Your task to perform on an android device: Search for flights from Buenos aires to Helsinki Image 0: 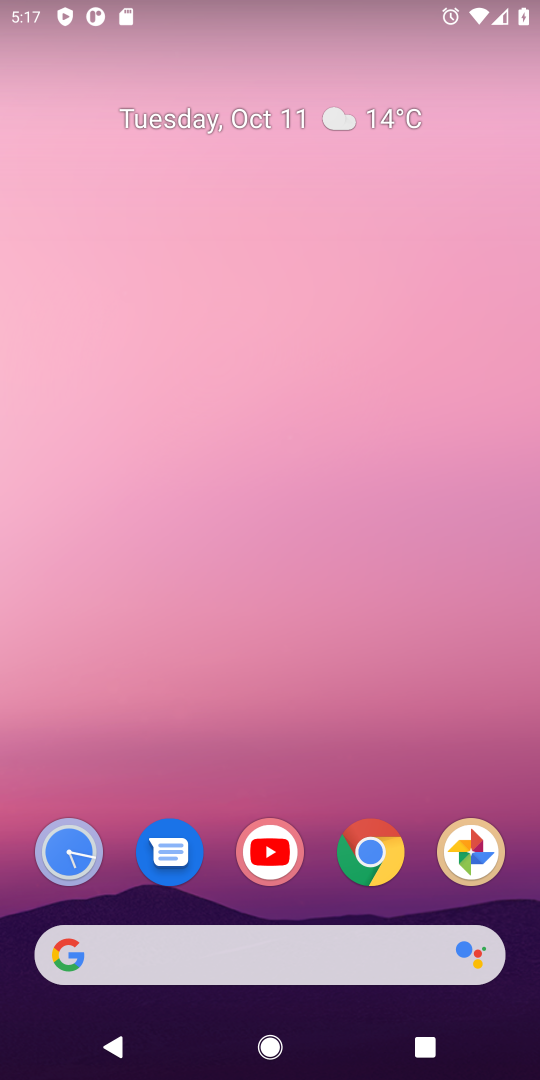
Step 0: click (377, 842)
Your task to perform on an android device: Search for flights from Buenos aires to Helsinki Image 1: 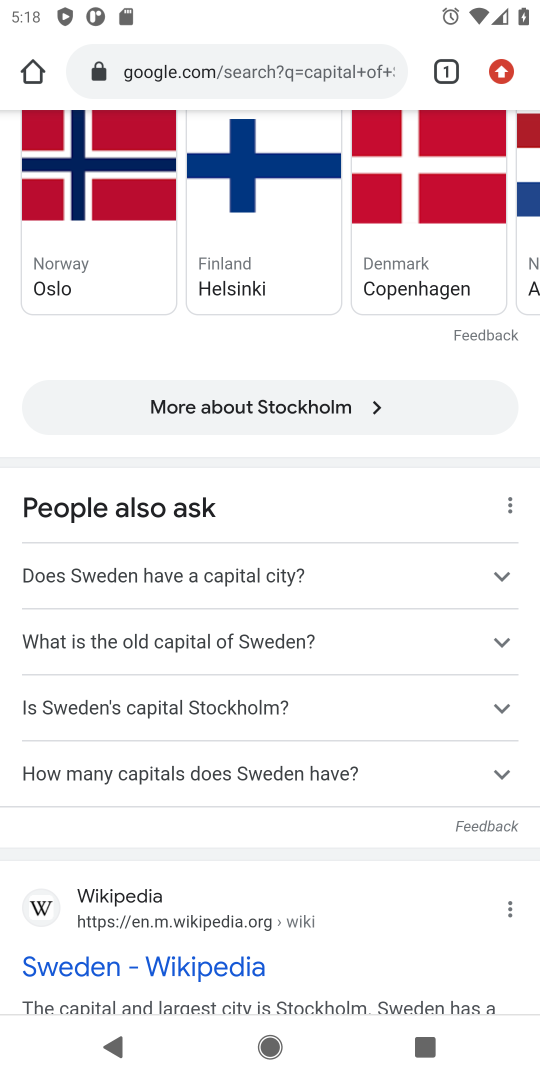
Step 1: click (369, 81)
Your task to perform on an android device: Search for flights from Buenos aires to Helsinki Image 2: 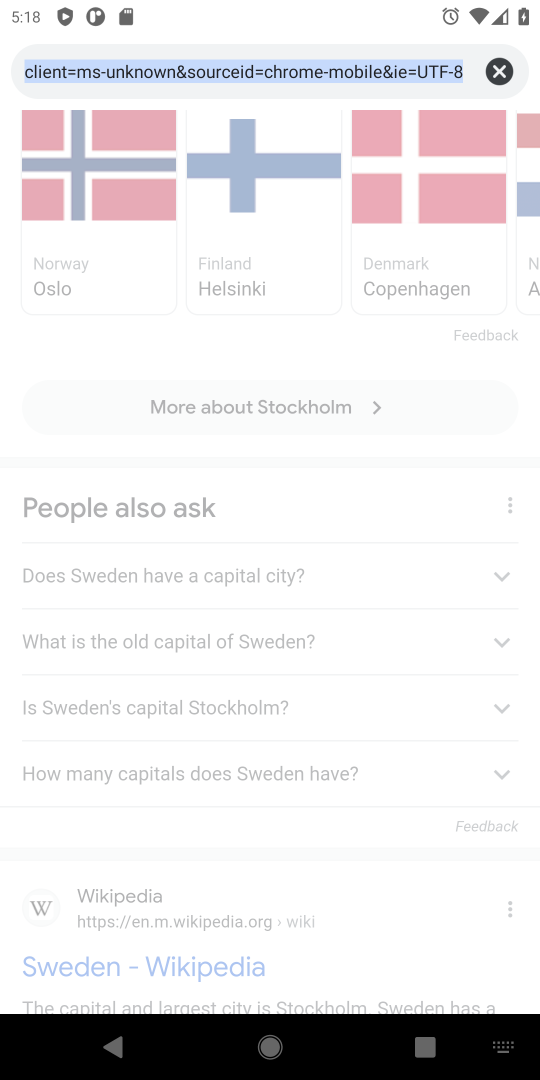
Step 2: type "flights from Buenos aires to Helsinki"
Your task to perform on an android device: Search for flights from Buenos aires to Helsinki Image 3: 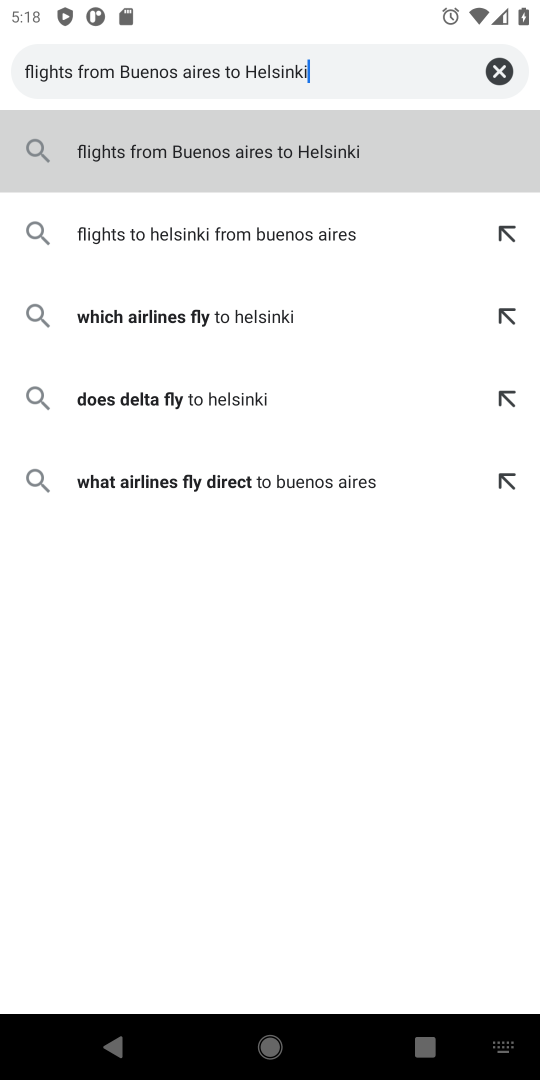
Step 3: click (270, 135)
Your task to perform on an android device: Search for flights from Buenos aires to Helsinki Image 4: 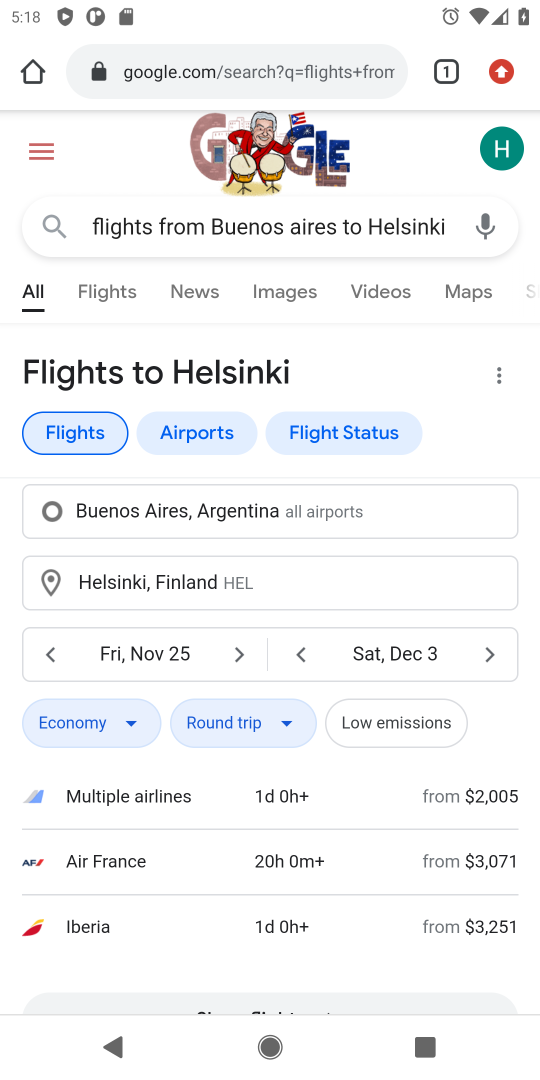
Step 4: task complete